Your task to perform on an android device: Open settings on Google Maps Image 0: 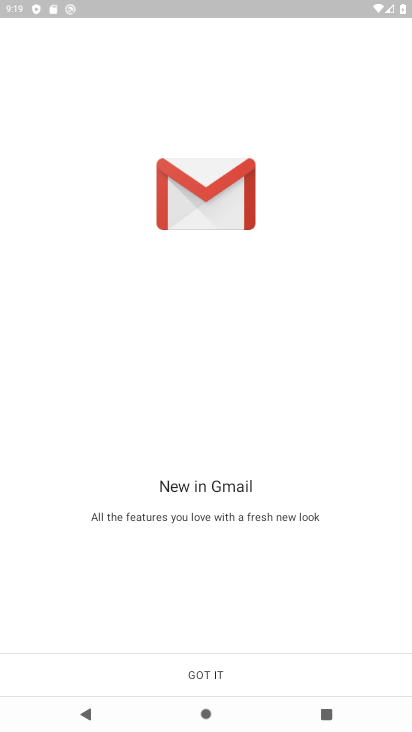
Step 0: press home button
Your task to perform on an android device: Open settings on Google Maps Image 1: 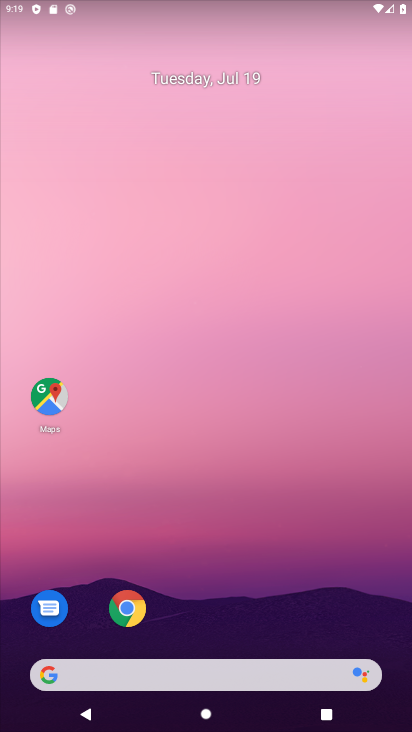
Step 1: click (40, 395)
Your task to perform on an android device: Open settings on Google Maps Image 2: 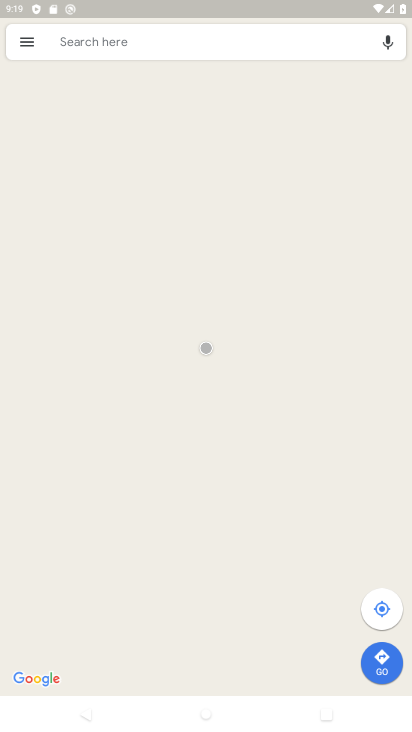
Step 2: click (25, 43)
Your task to perform on an android device: Open settings on Google Maps Image 3: 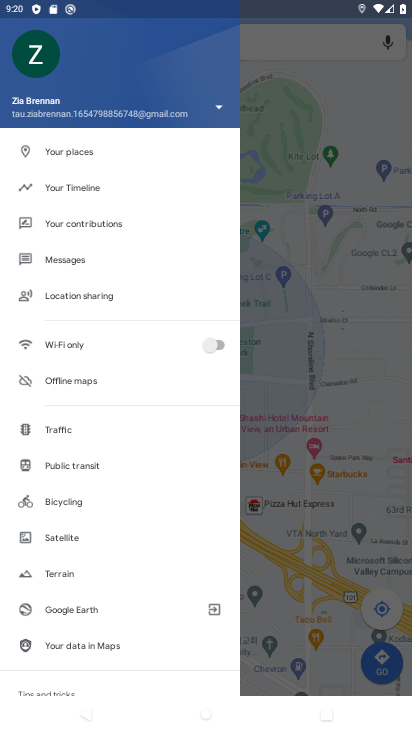
Step 3: drag from (128, 593) to (160, 171)
Your task to perform on an android device: Open settings on Google Maps Image 4: 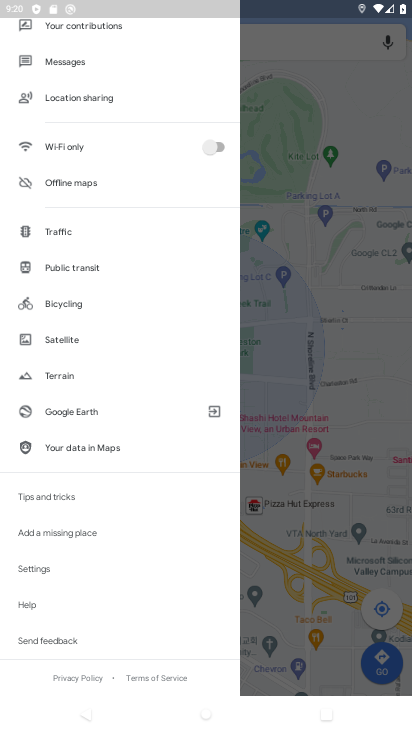
Step 4: click (35, 566)
Your task to perform on an android device: Open settings on Google Maps Image 5: 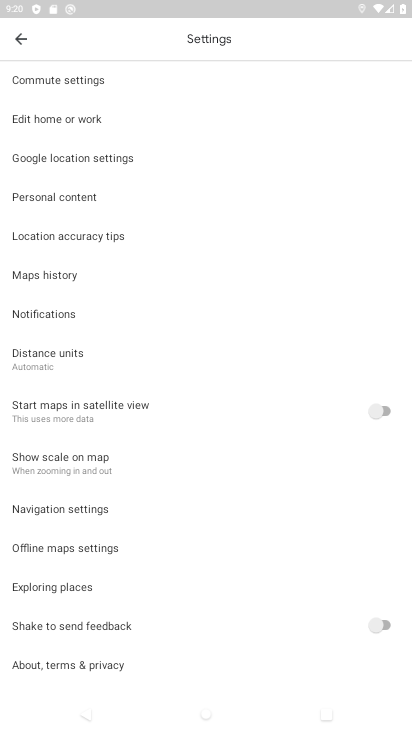
Step 5: task complete